Your task to perform on an android device: find photos in the google photos app Image 0: 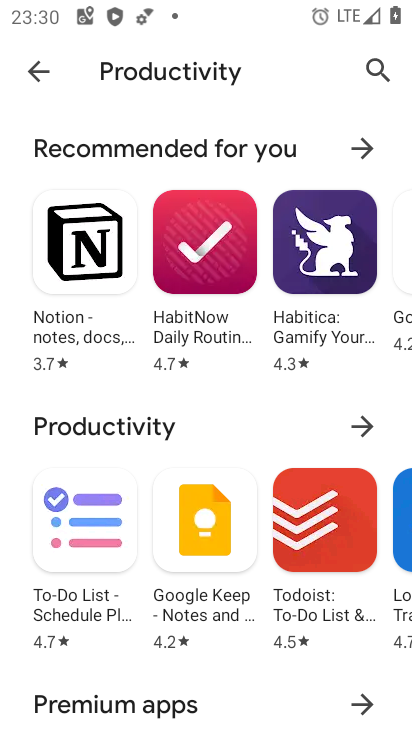
Step 0: press home button
Your task to perform on an android device: find photos in the google photos app Image 1: 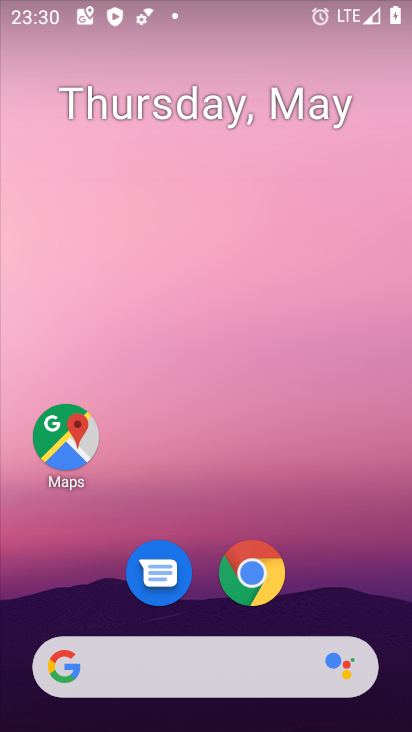
Step 1: drag from (201, 605) to (228, 266)
Your task to perform on an android device: find photos in the google photos app Image 2: 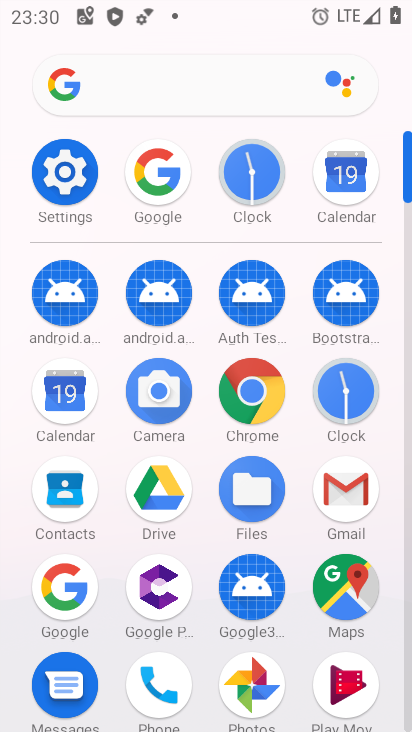
Step 2: click (257, 671)
Your task to perform on an android device: find photos in the google photos app Image 3: 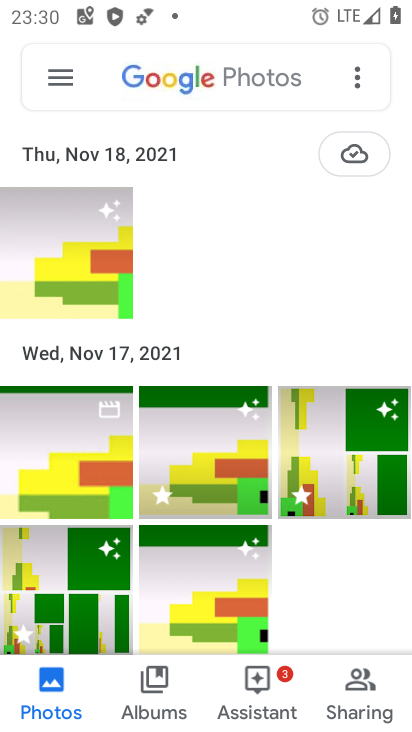
Step 3: click (175, 77)
Your task to perform on an android device: find photos in the google photos app Image 4: 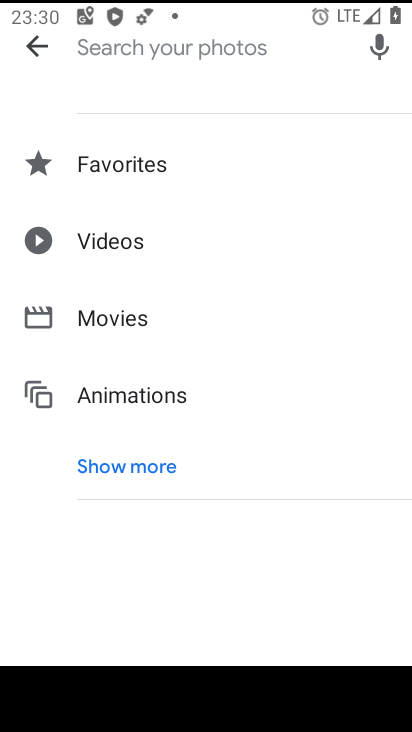
Step 4: type "aa"
Your task to perform on an android device: find photos in the google photos app Image 5: 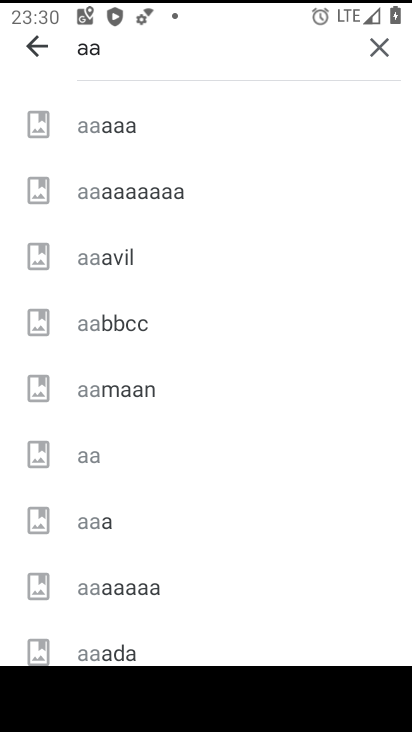
Step 5: click (128, 193)
Your task to perform on an android device: find photos in the google photos app Image 6: 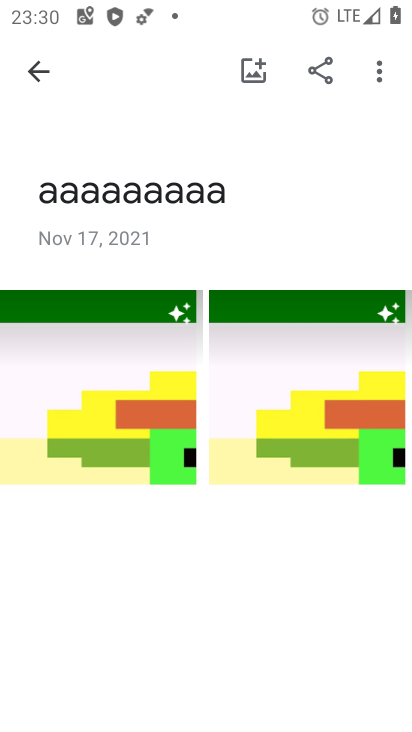
Step 6: task complete